Your task to perform on an android device: Open calendar and show me the second week of next month Image 0: 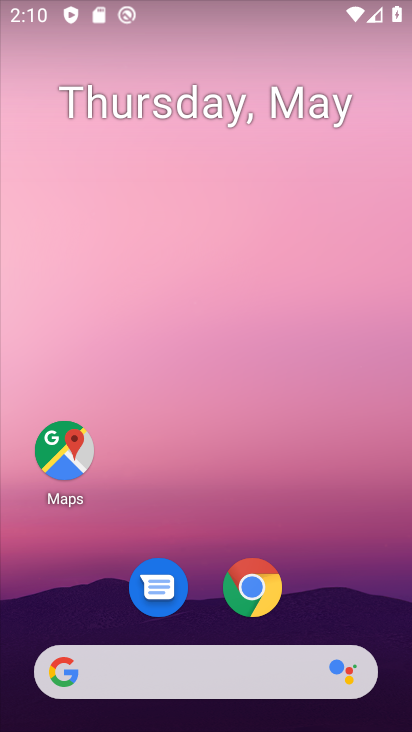
Step 0: drag from (318, 579) to (322, 226)
Your task to perform on an android device: Open calendar and show me the second week of next month Image 1: 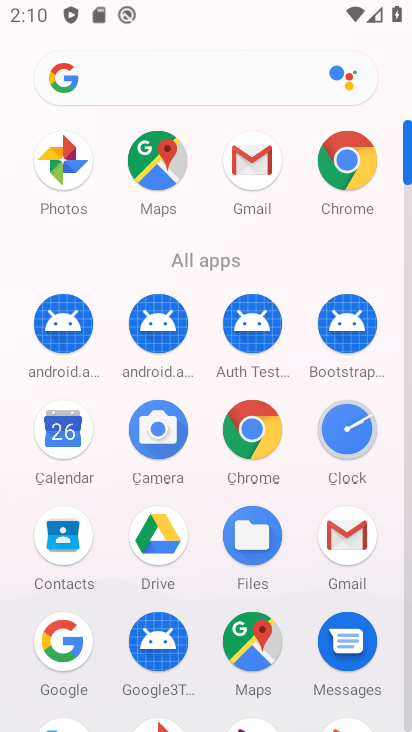
Step 1: click (74, 440)
Your task to perform on an android device: Open calendar and show me the second week of next month Image 2: 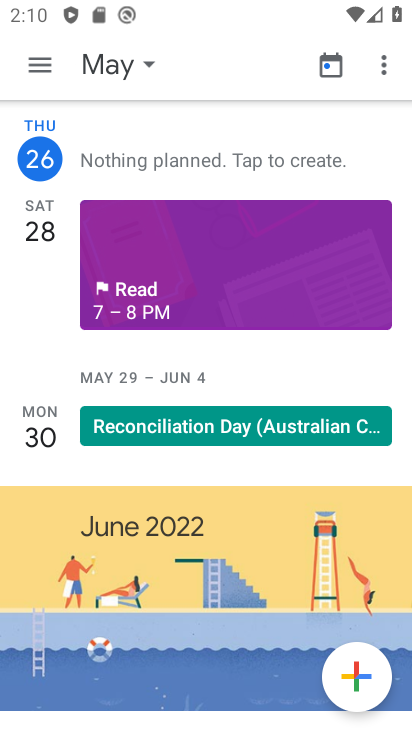
Step 2: click (93, 62)
Your task to perform on an android device: Open calendar and show me the second week of next month Image 3: 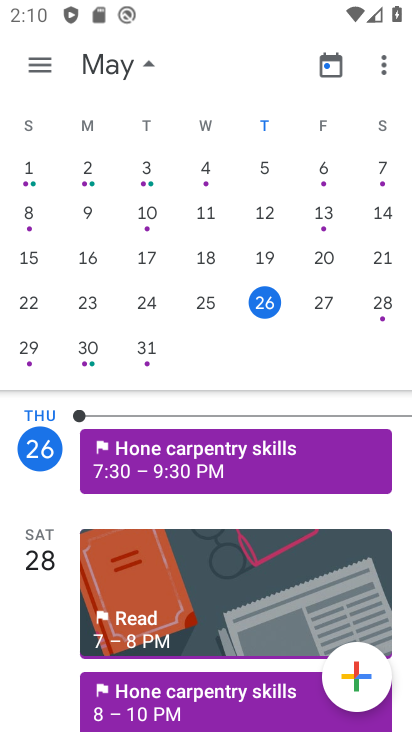
Step 3: drag from (374, 262) to (80, 238)
Your task to perform on an android device: Open calendar and show me the second week of next month Image 4: 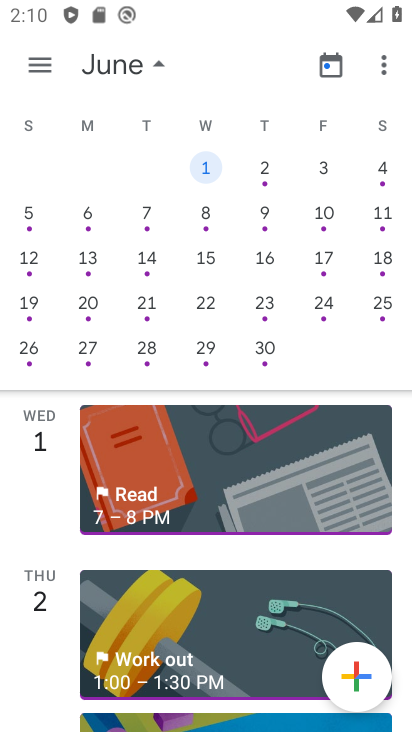
Step 4: click (35, 257)
Your task to perform on an android device: Open calendar and show me the second week of next month Image 5: 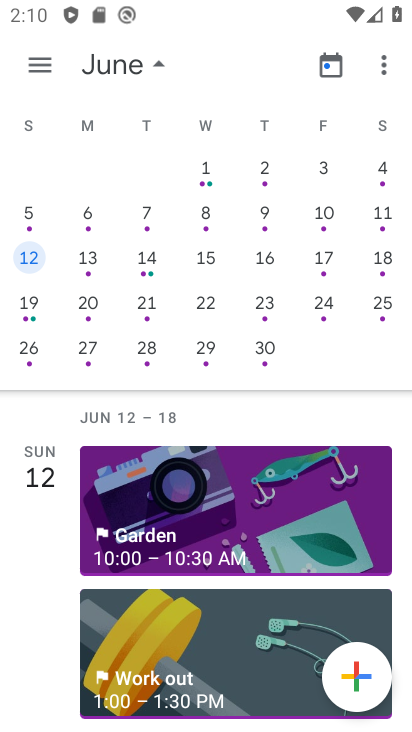
Step 5: drag from (259, 527) to (295, 165)
Your task to perform on an android device: Open calendar and show me the second week of next month Image 6: 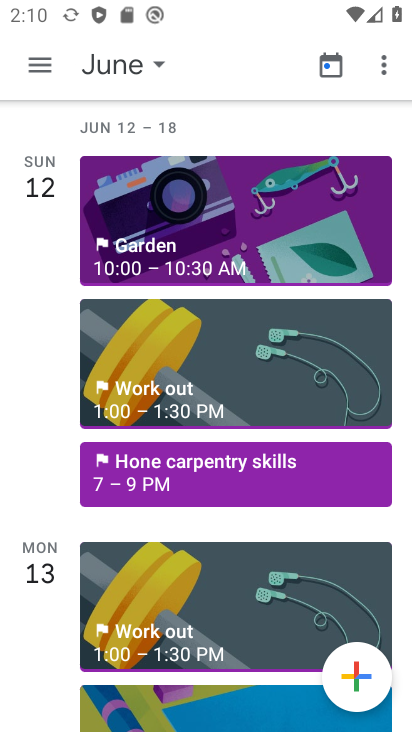
Step 6: click (45, 58)
Your task to perform on an android device: Open calendar and show me the second week of next month Image 7: 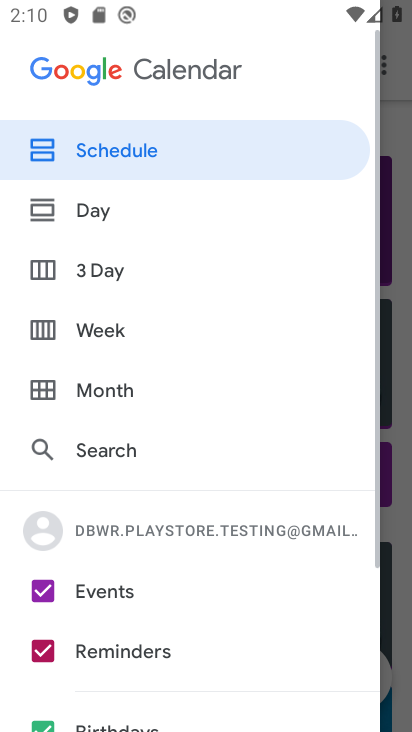
Step 7: click (124, 334)
Your task to perform on an android device: Open calendar and show me the second week of next month Image 8: 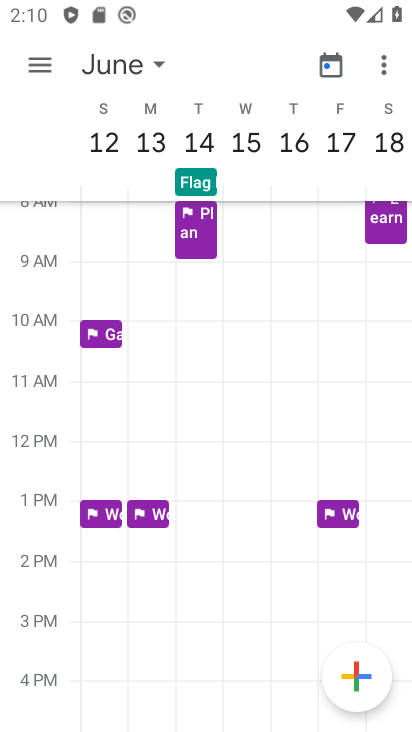
Step 8: task complete